Your task to perform on an android device: Go to sound settings Image 0: 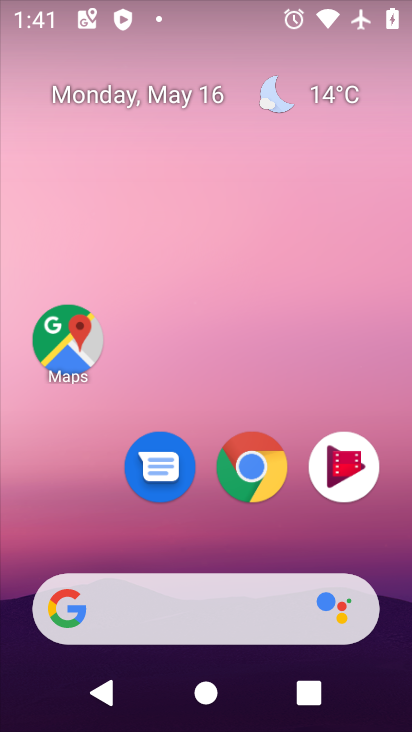
Step 0: drag from (214, 505) to (237, 207)
Your task to perform on an android device: Go to sound settings Image 1: 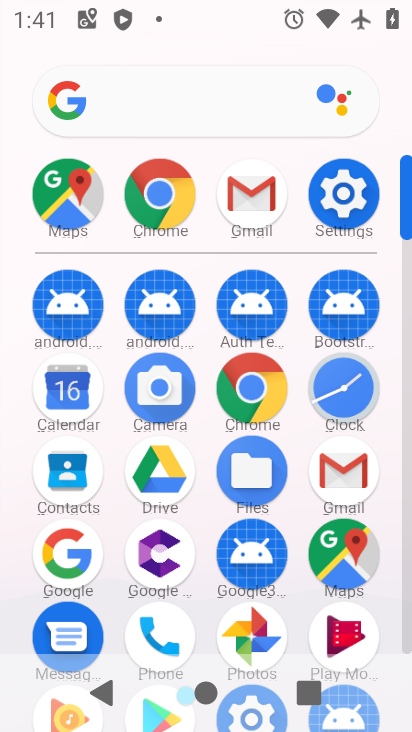
Step 1: click (341, 194)
Your task to perform on an android device: Go to sound settings Image 2: 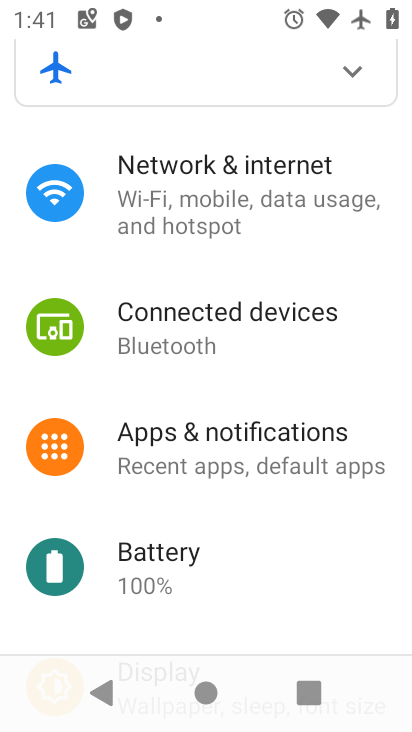
Step 2: drag from (210, 550) to (280, 166)
Your task to perform on an android device: Go to sound settings Image 3: 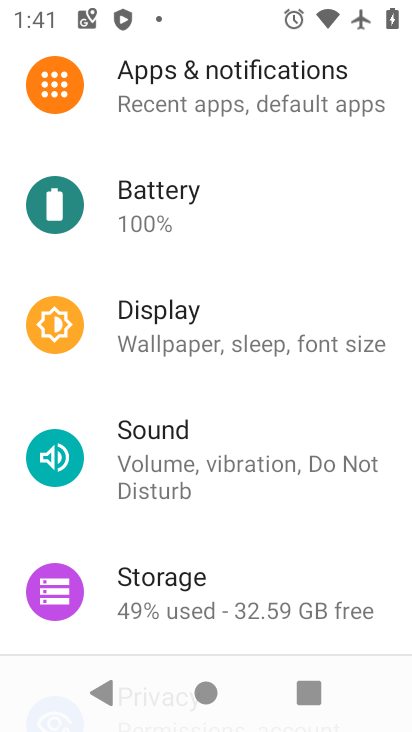
Step 3: click (204, 462)
Your task to perform on an android device: Go to sound settings Image 4: 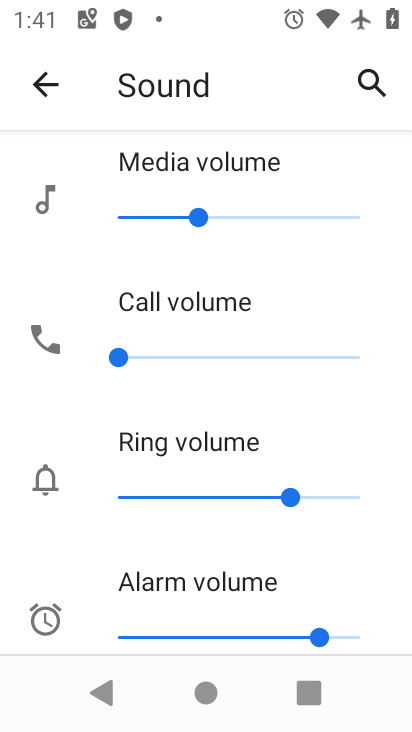
Step 4: task complete